Your task to perform on an android device: allow cookies in the chrome app Image 0: 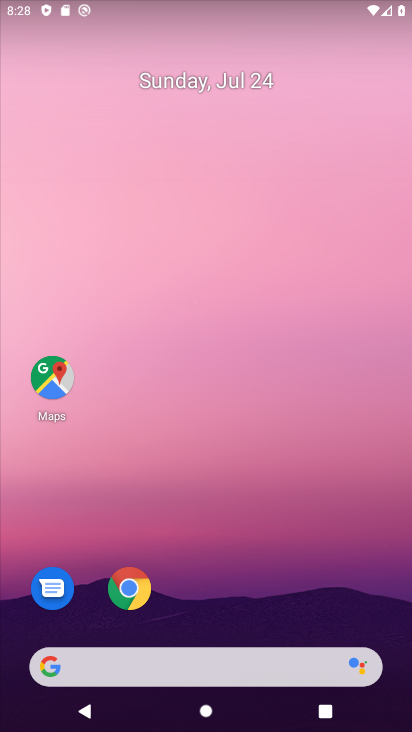
Step 0: click (133, 583)
Your task to perform on an android device: allow cookies in the chrome app Image 1: 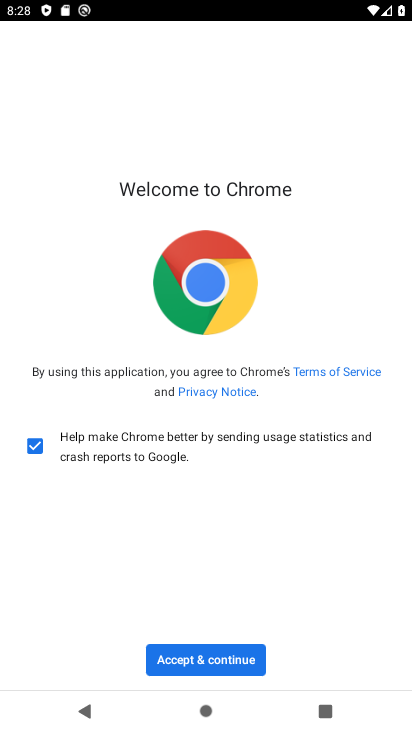
Step 1: click (223, 665)
Your task to perform on an android device: allow cookies in the chrome app Image 2: 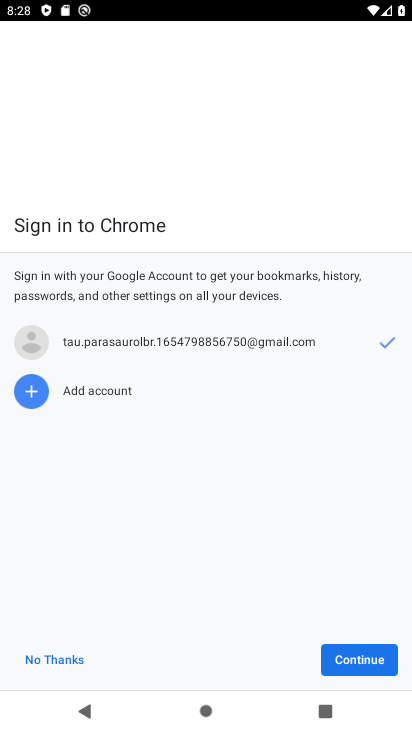
Step 2: click (355, 646)
Your task to perform on an android device: allow cookies in the chrome app Image 3: 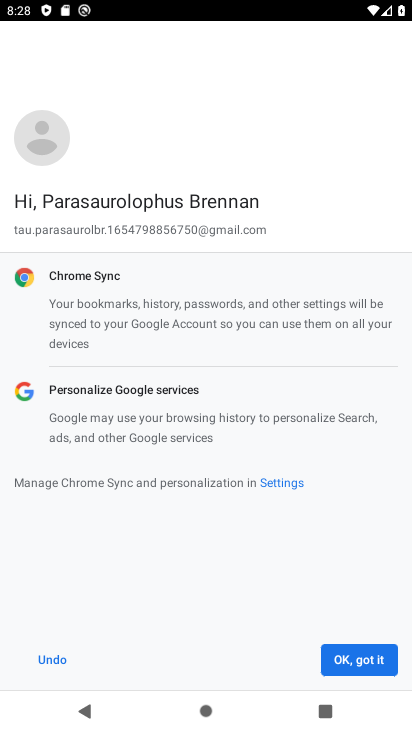
Step 3: click (355, 646)
Your task to perform on an android device: allow cookies in the chrome app Image 4: 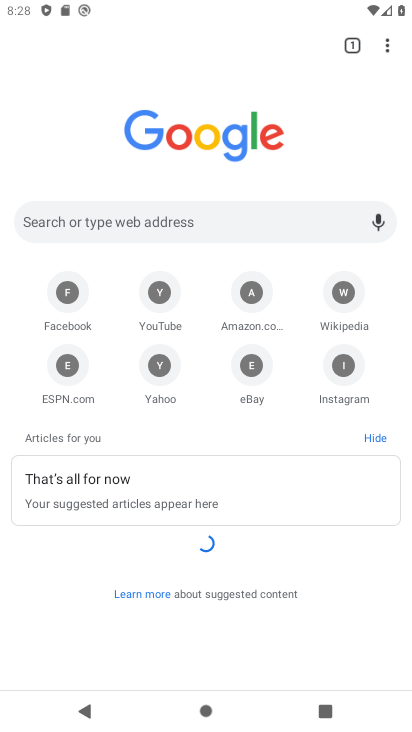
Step 4: click (391, 53)
Your task to perform on an android device: allow cookies in the chrome app Image 5: 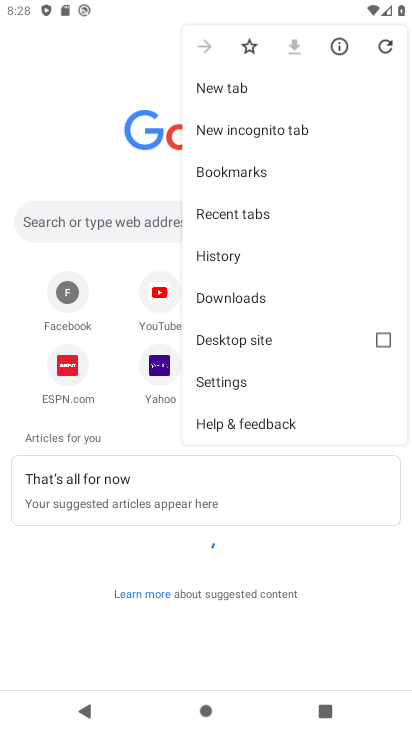
Step 5: click (258, 389)
Your task to perform on an android device: allow cookies in the chrome app Image 6: 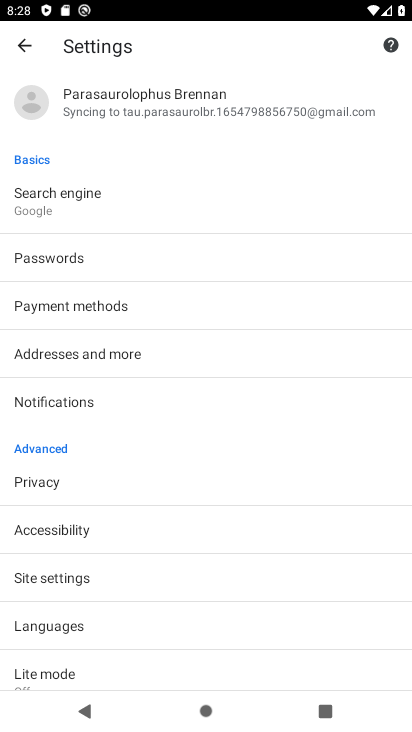
Step 6: click (108, 571)
Your task to perform on an android device: allow cookies in the chrome app Image 7: 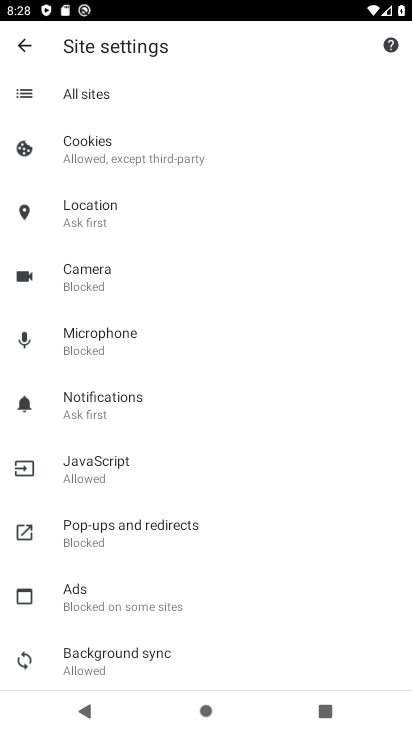
Step 7: click (234, 140)
Your task to perform on an android device: allow cookies in the chrome app Image 8: 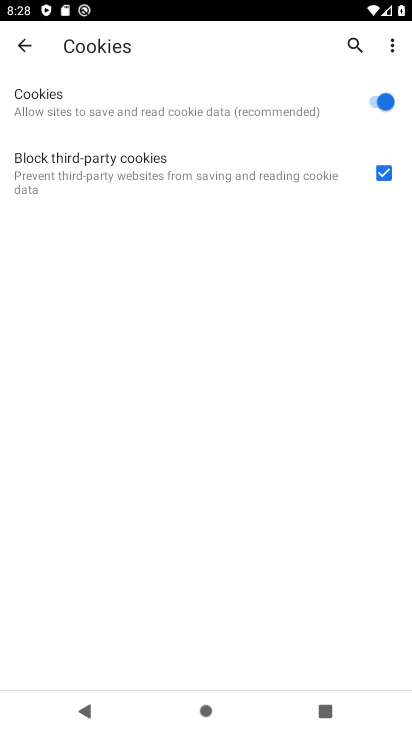
Step 8: task complete